Your task to perform on an android device: Open accessibility settings Image 0: 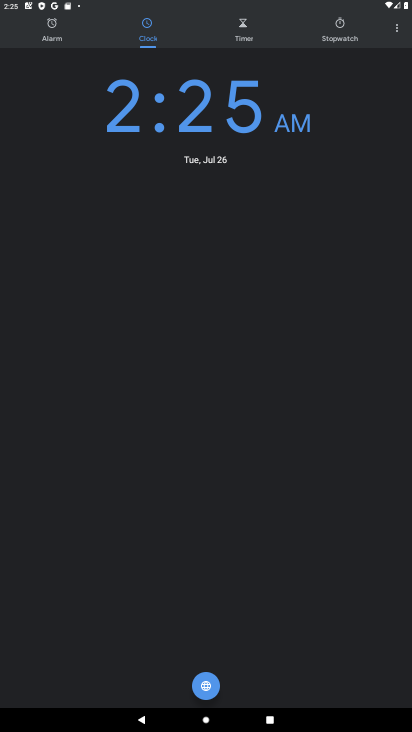
Step 0: press home button
Your task to perform on an android device: Open accessibility settings Image 1: 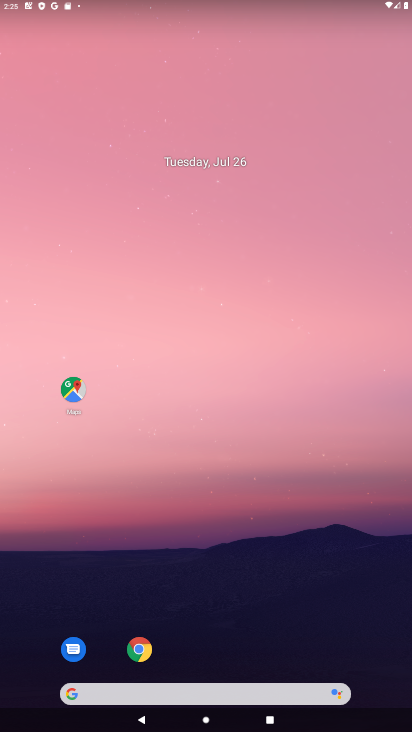
Step 1: drag from (199, 682) to (248, 68)
Your task to perform on an android device: Open accessibility settings Image 2: 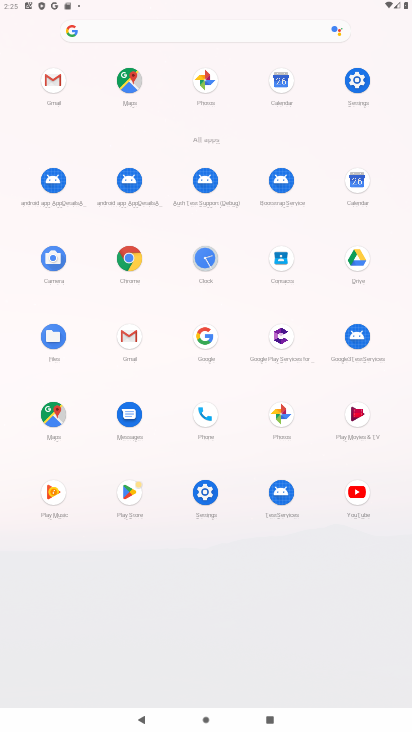
Step 2: click (349, 96)
Your task to perform on an android device: Open accessibility settings Image 3: 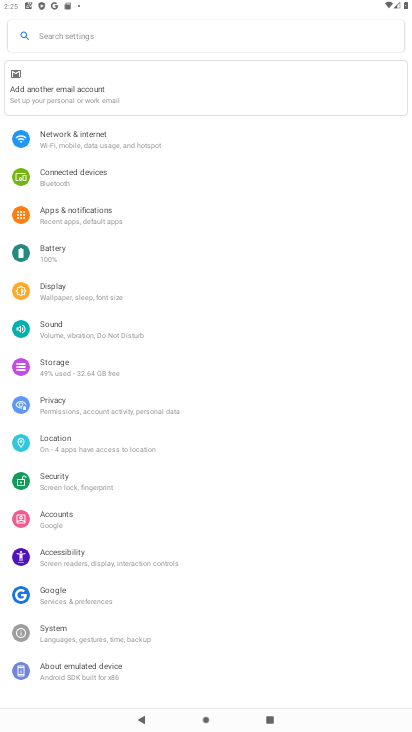
Step 3: click (84, 555)
Your task to perform on an android device: Open accessibility settings Image 4: 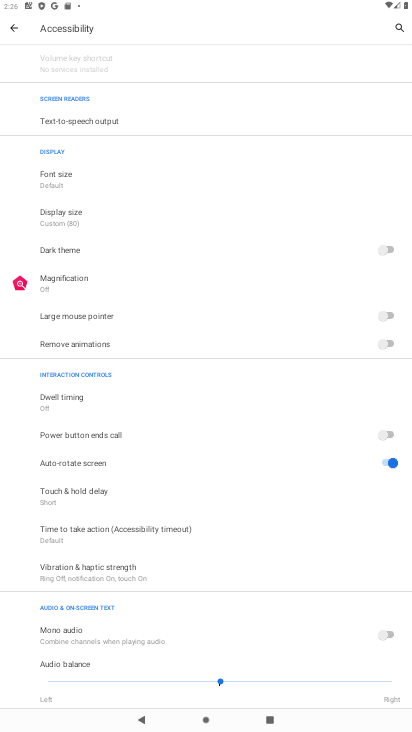
Step 4: task complete